Your task to perform on an android device: What's on my calendar tomorrow? Image 0: 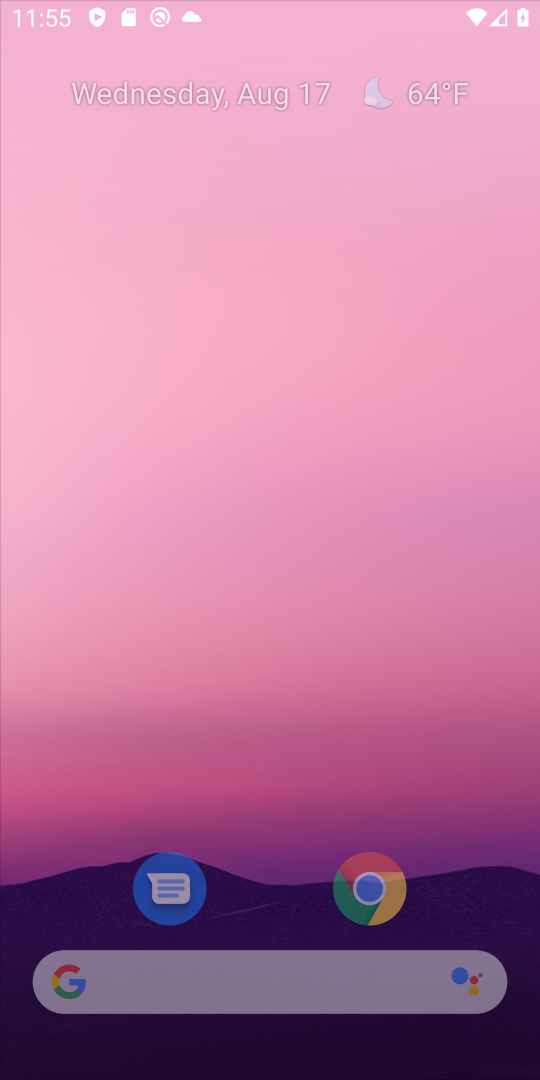
Step 0: press home button
Your task to perform on an android device: What's on my calendar tomorrow? Image 1: 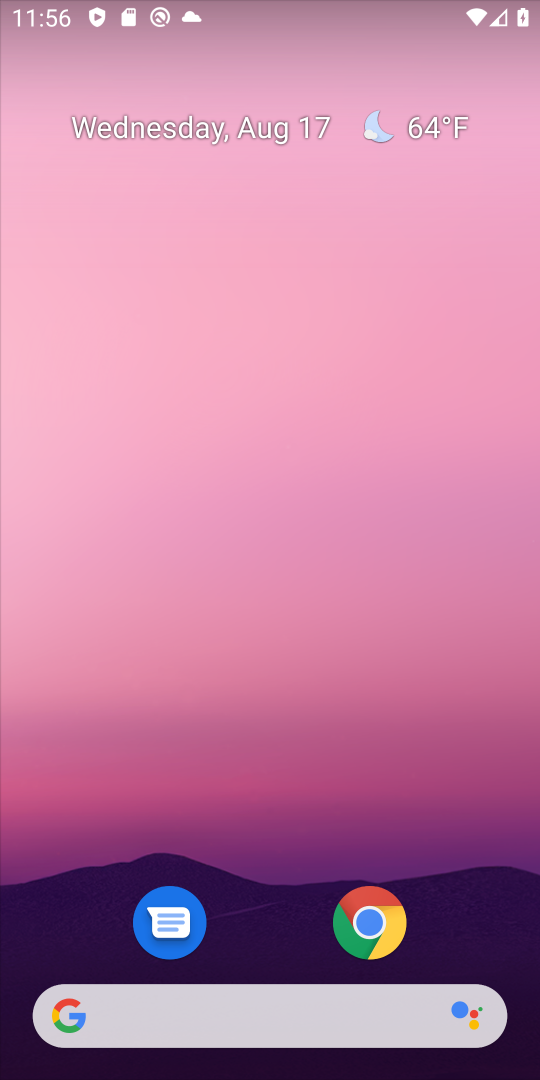
Step 1: drag from (277, 842) to (243, 14)
Your task to perform on an android device: What's on my calendar tomorrow? Image 2: 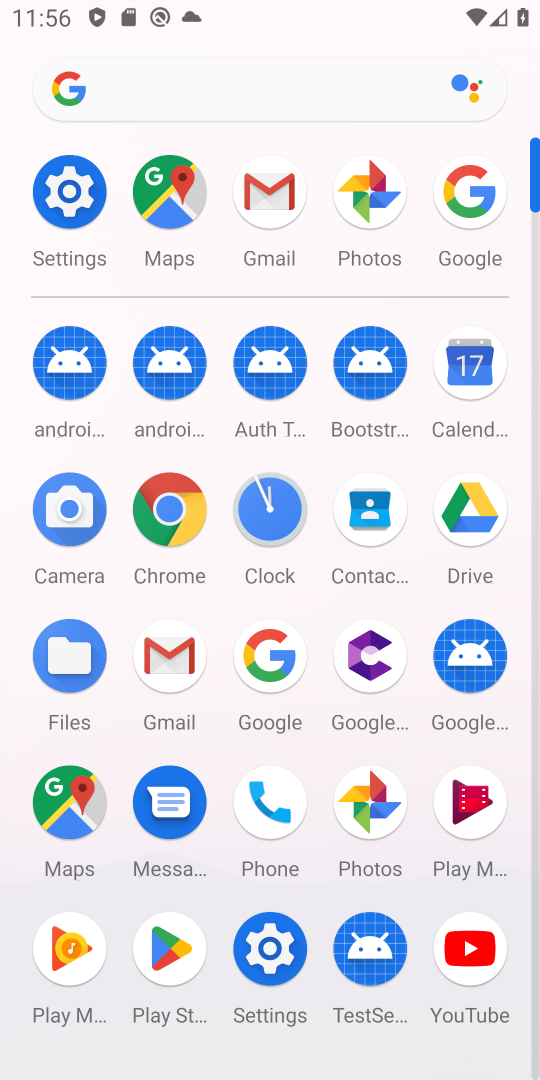
Step 2: click (469, 358)
Your task to perform on an android device: What's on my calendar tomorrow? Image 3: 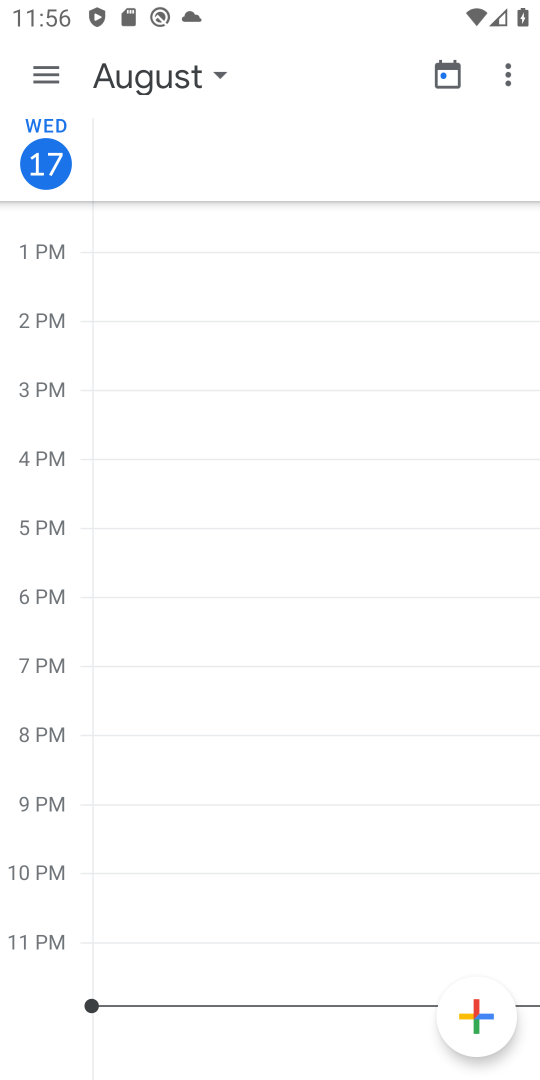
Step 3: click (220, 65)
Your task to perform on an android device: What's on my calendar tomorrow? Image 4: 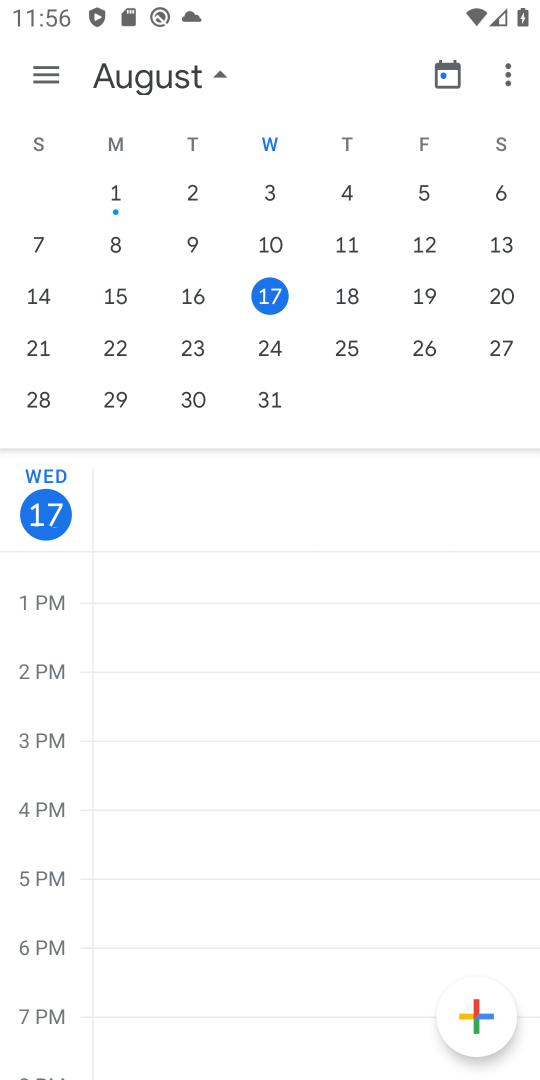
Step 4: click (345, 293)
Your task to perform on an android device: What's on my calendar tomorrow? Image 5: 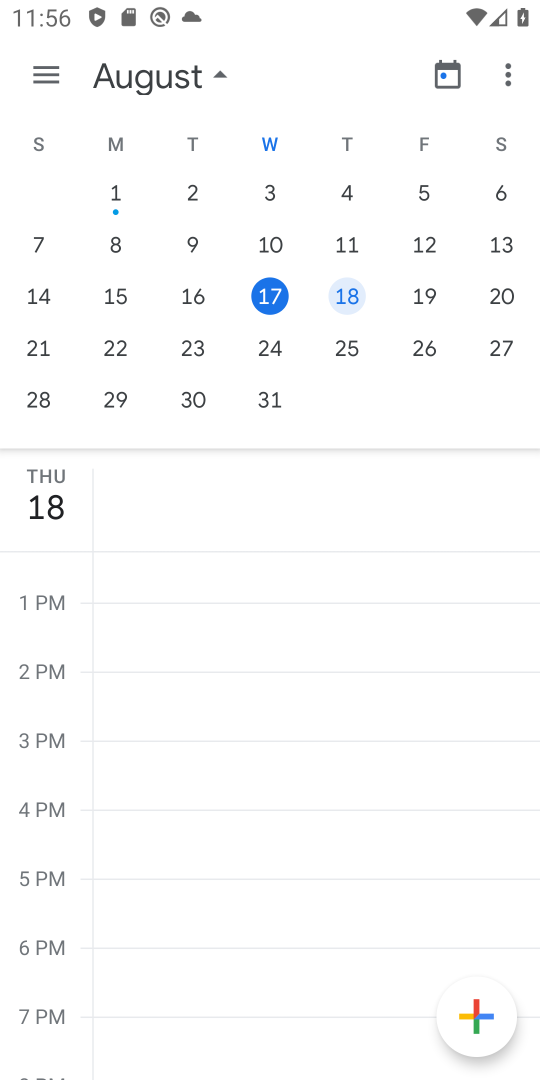
Step 5: task complete